Your task to perform on an android device: change your default location settings in chrome Image 0: 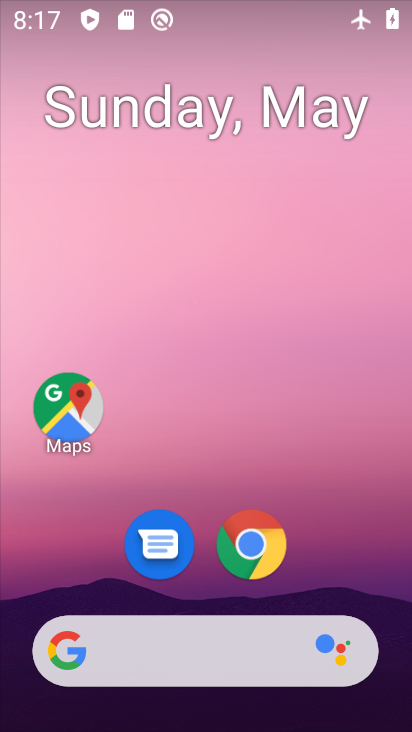
Step 0: drag from (331, 561) to (272, 51)
Your task to perform on an android device: change your default location settings in chrome Image 1: 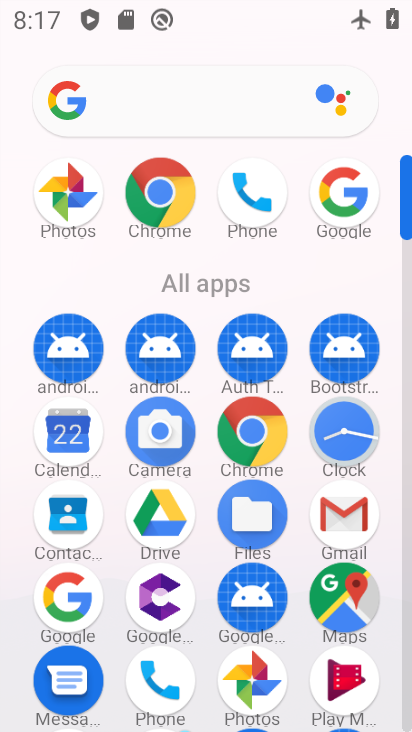
Step 1: drag from (12, 550) to (12, 232)
Your task to perform on an android device: change your default location settings in chrome Image 2: 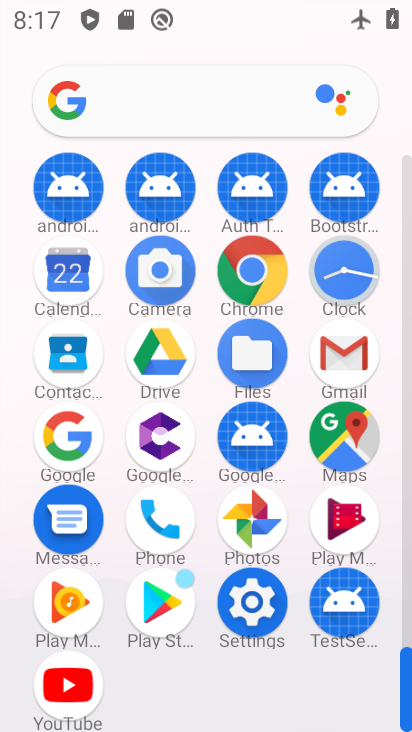
Step 2: click (251, 270)
Your task to perform on an android device: change your default location settings in chrome Image 3: 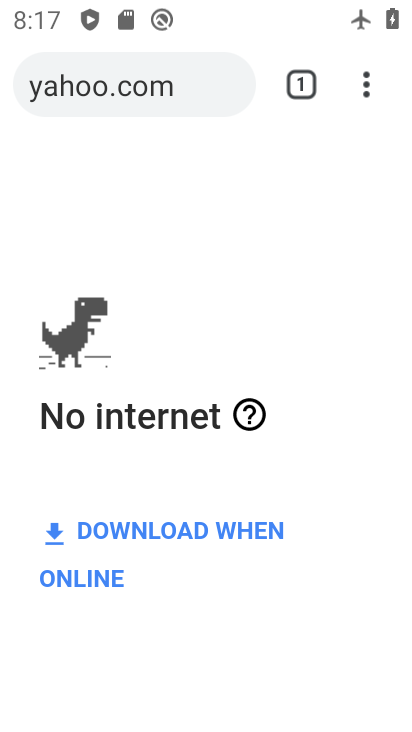
Step 3: drag from (366, 83) to (62, 587)
Your task to perform on an android device: change your default location settings in chrome Image 4: 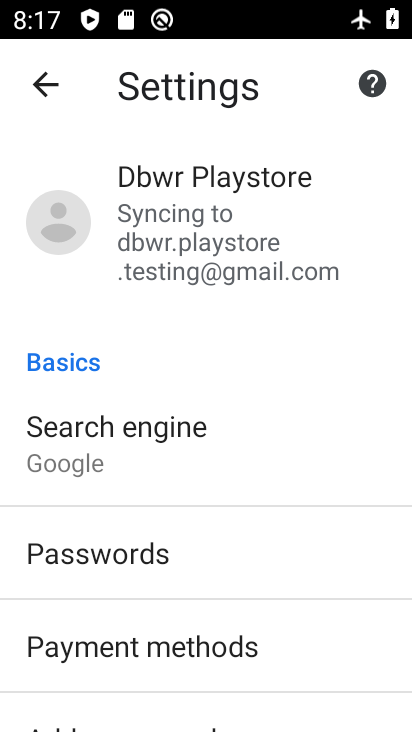
Step 4: drag from (242, 536) to (242, 183)
Your task to perform on an android device: change your default location settings in chrome Image 5: 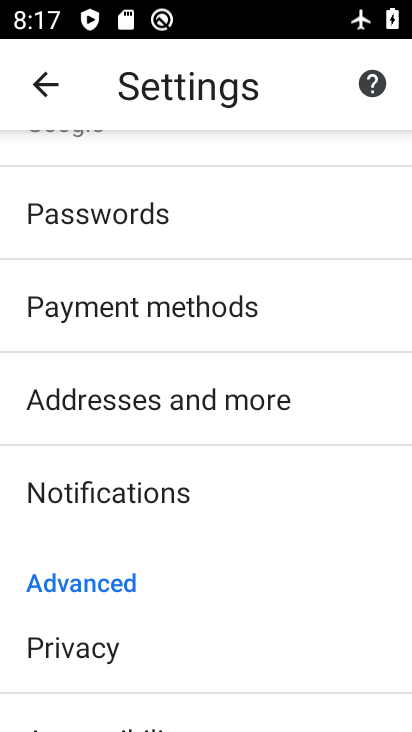
Step 5: drag from (301, 522) to (289, 186)
Your task to perform on an android device: change your default location settings in chrome Image 6: 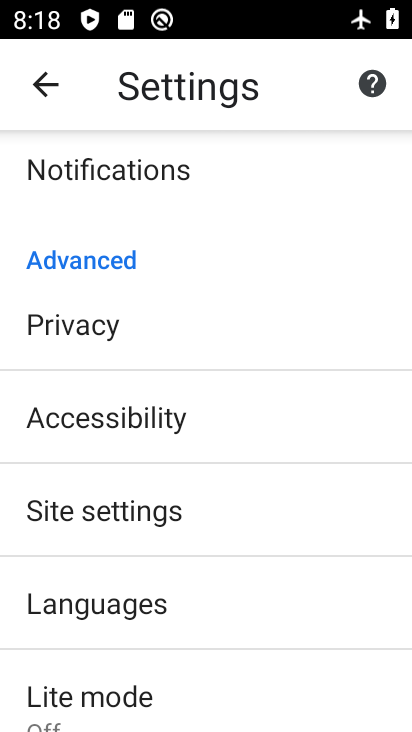
Step 6: drag from (236, 586) to (258, 286)
Your task to perform on an android device: change your default location settings in chrome Image 7: 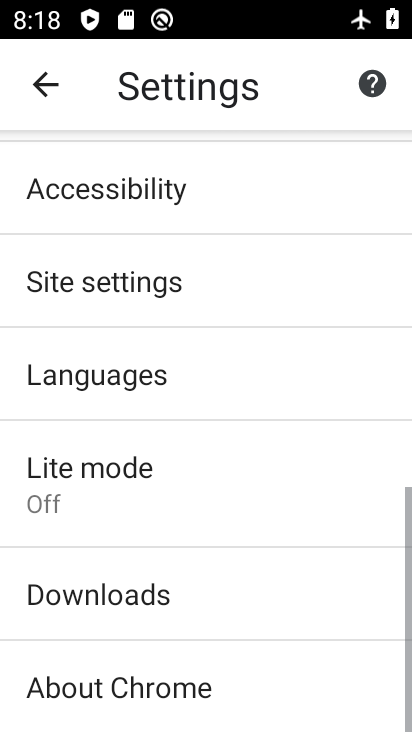
Step 7: click (160, 277)
Your task to perform on an android device: change your default location settings in chrome Image 8: 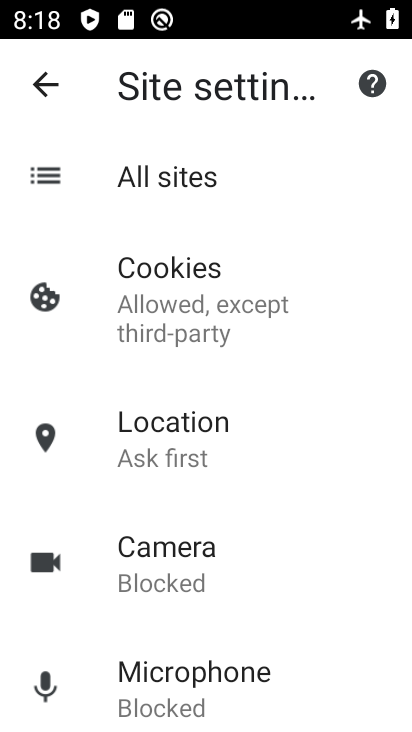
Step 8: click (195, 457)
Your task to perform on an android device: change your default location settings in chrome Image 9: 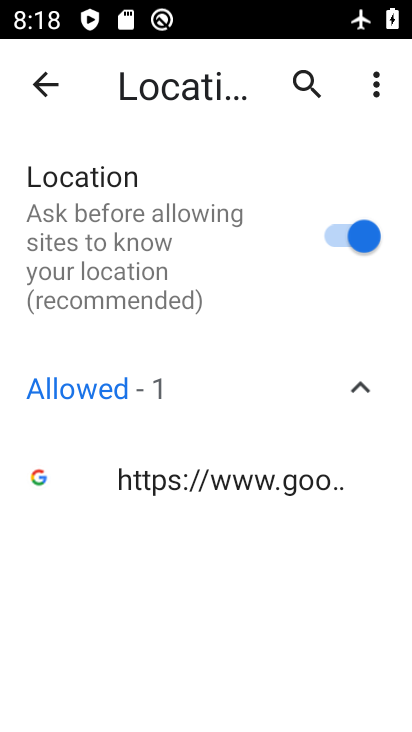
Step 9: click (343, 225)
Your task to perform on an android device: change your default location settings in chrome Image 10: 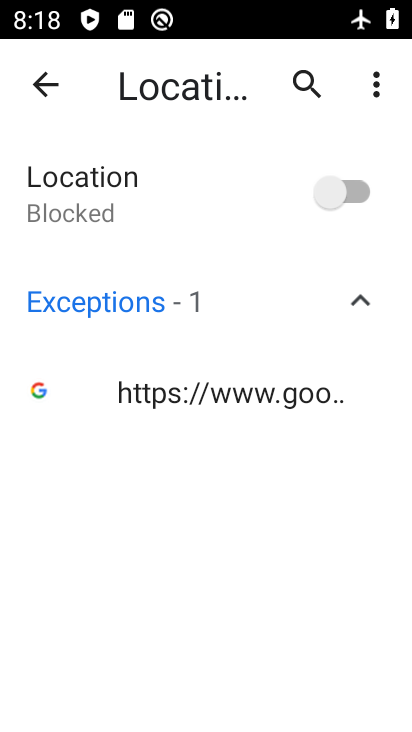
Step 10: task complete